Your task to perform on an android device: find photos in the google photos app Image 0: 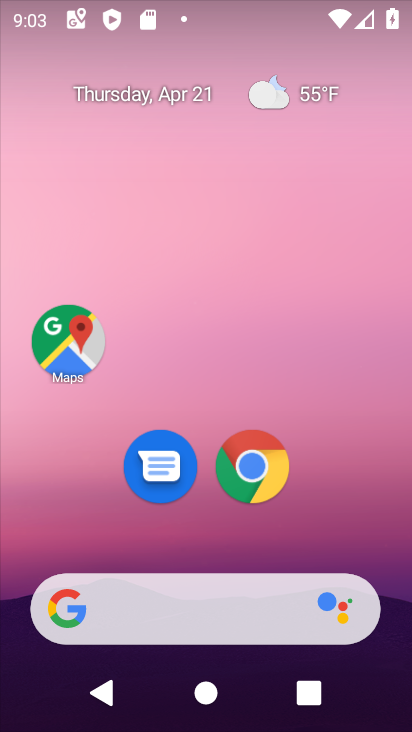
Step 0: click (294, 126)
Your task to perform on an android device: find photos in the google photos app Image 1: 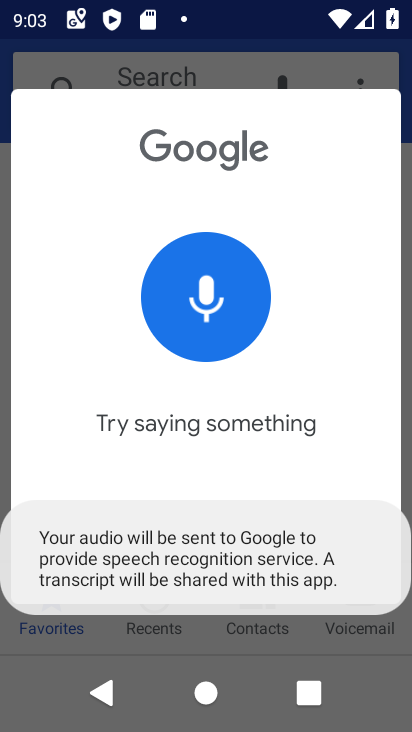
Step 1: press home button
Your task to perform on an android device: find photos in the google photos app Image 2: 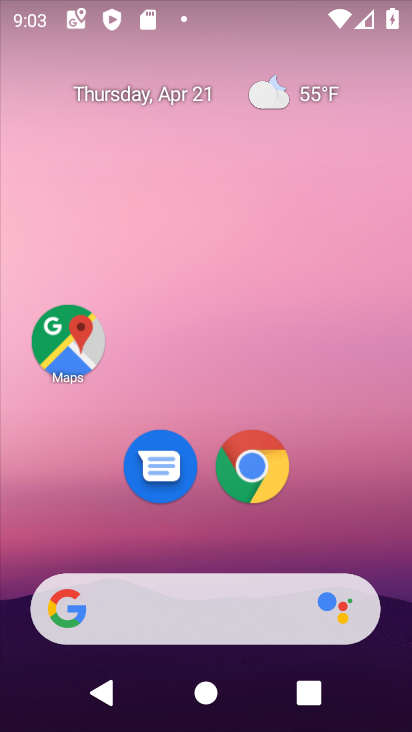
Step 2: drag from (315, 522) to (335, 160)
Your task to perform on an android device: find photos in the google photos app Image 3: 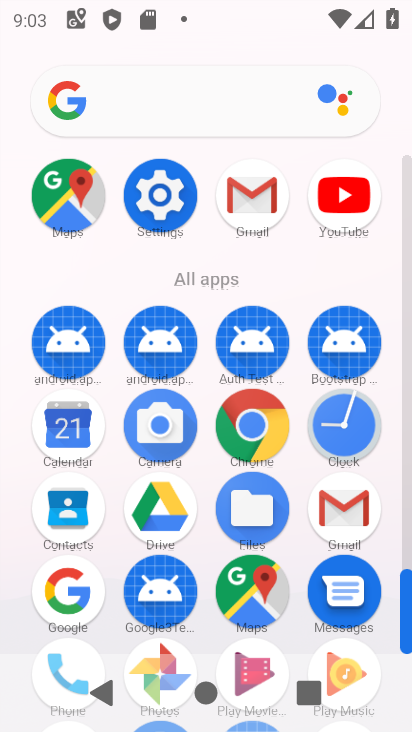
Step 3: drag from (203, 624) to (210, 420)
Your task to perform on an android device: find photos in the google photos app Image 4: 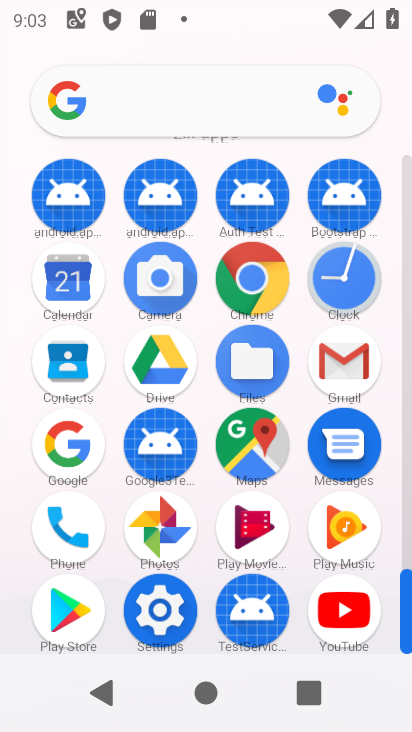
Step 4: click (171, 530)
Your task to perform on an android device: find photos in the google photos app Image 5: 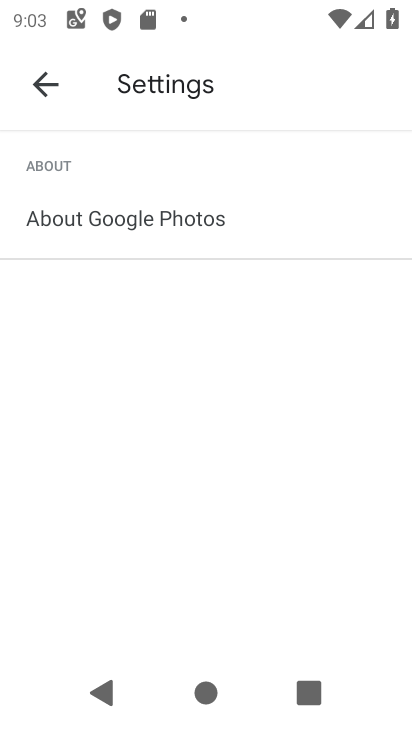
Step 5: press back button
Your task to perform on an android device: find photos in the google photos app Image 6: 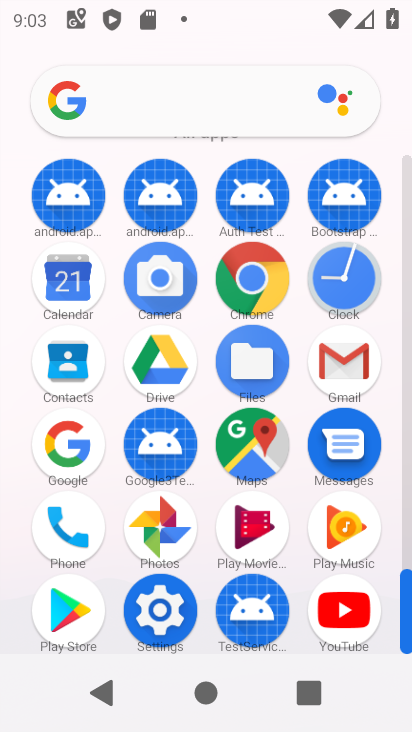
Step 6: click (150, 540)
Your task to perform on an android device: find photos in the google photos app Image 7: 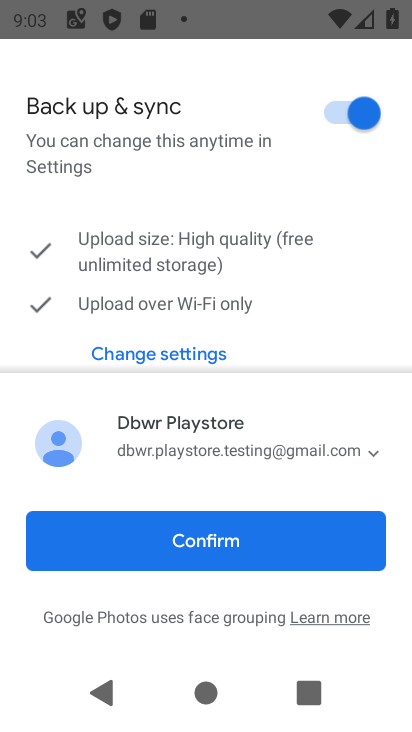
Step 7: click (242, 533)
Your task to perform on an android device: find photos in the google photos app Image 8: 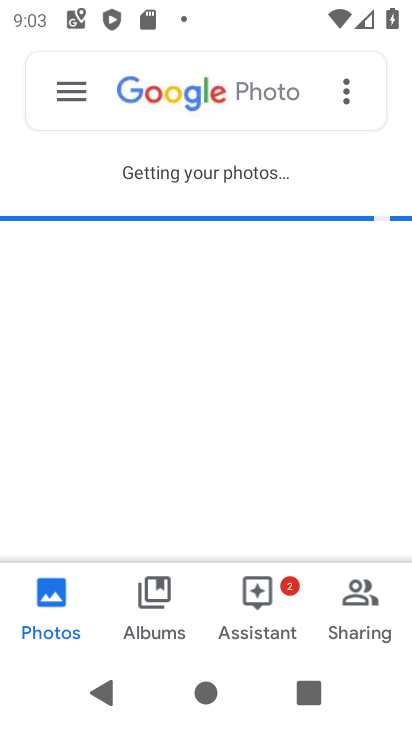
Step 8: drag from (75, 91) to (123, 388)
Your task to perform on an android device: find photos in the google photos app Image 9: 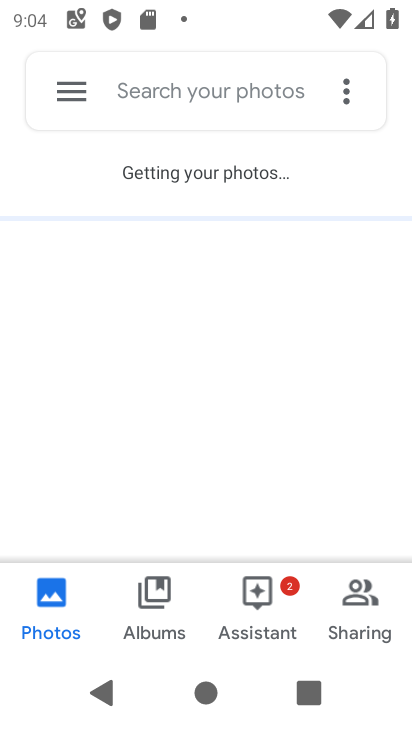
Step 9: click (168, 602)
Your task to perform on an android device: find photos in the google photos app Image 10: 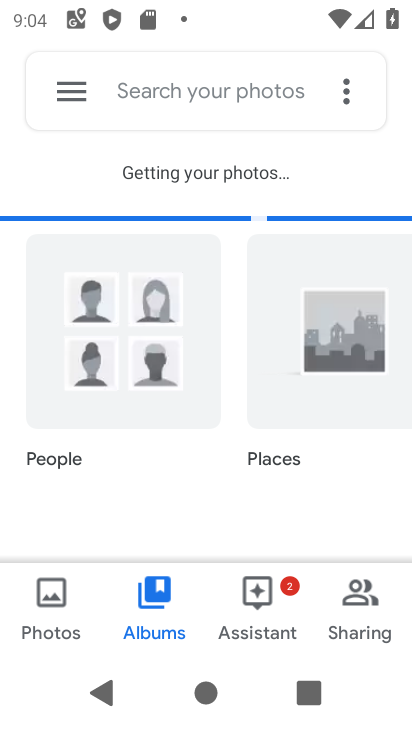
Step 10: click (54, 601)
Your task to perform on an android device: find photos in the google photos app Image 11: 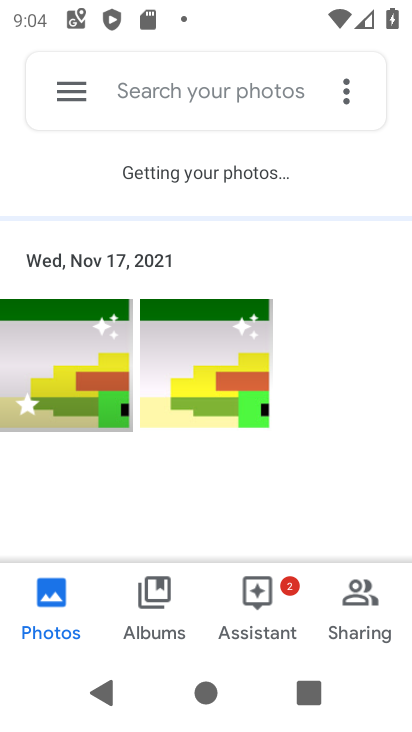
Step 11: task complete